Your task to perform on an android device: Open Chrome and go to the settings page Image 0: 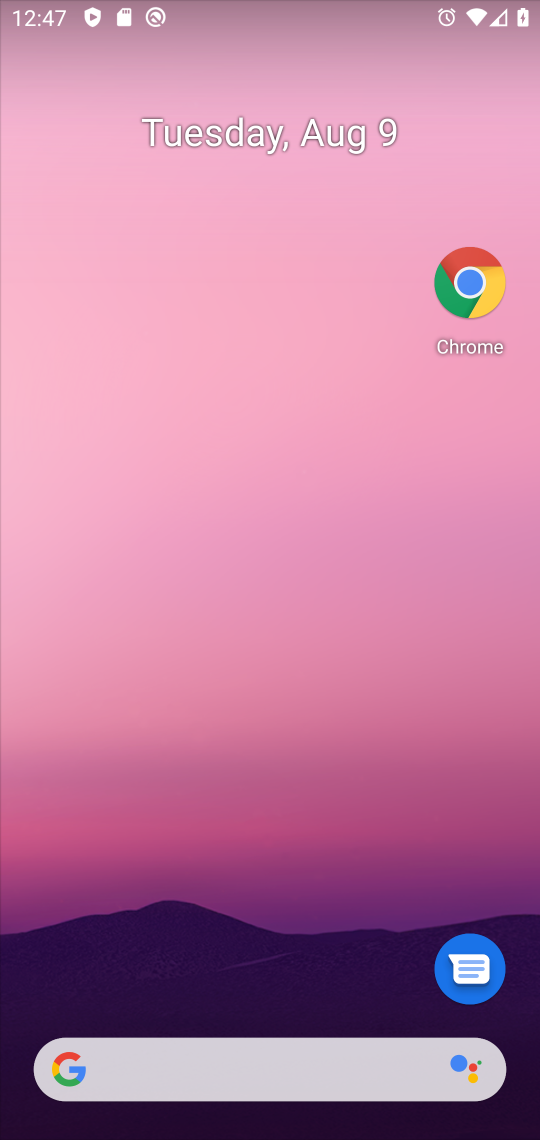
Step 0: click (504, 467)
Your task to perform on an android device: Open Chrome and go to the settings page Image 1: 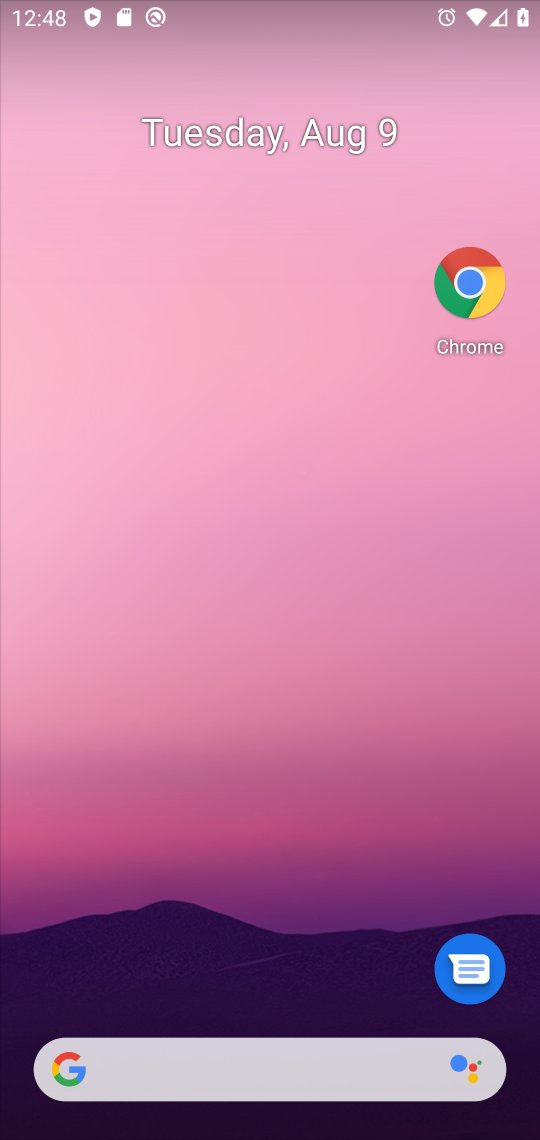
Step 1: drag from (277, 833) to (444, 3)
Your task to perform on an android device: Open Chrome and go to the settings page Image 2: 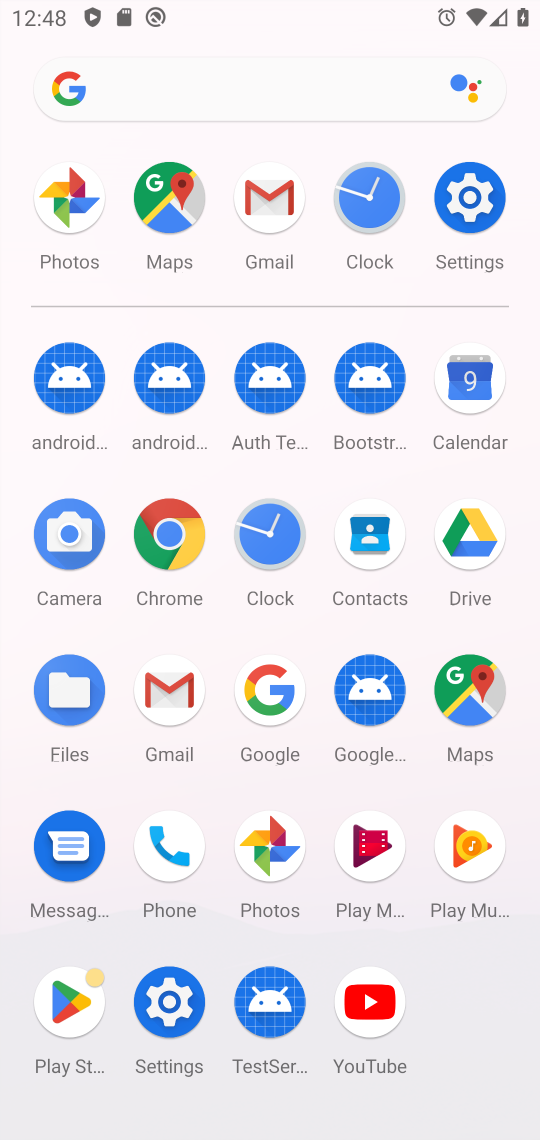
Step 2: click (466, 188)
Your task to perform on an android device: Open Chrome and go to the settings page Image 3: 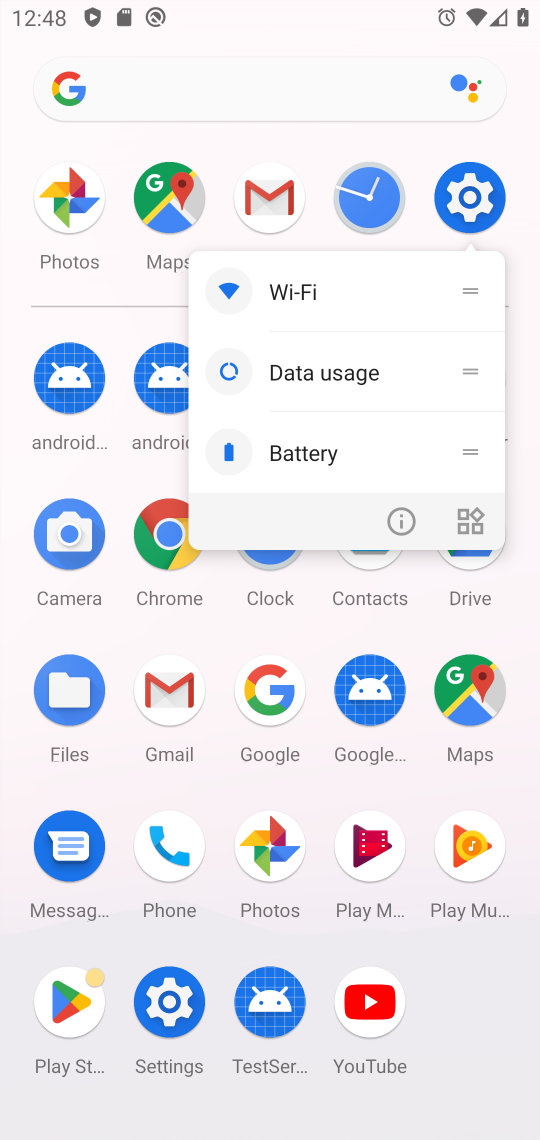
Step 3: click (387, 506)
Your task to perform on an android device: Open Chrome and go to the settings page Image 4: 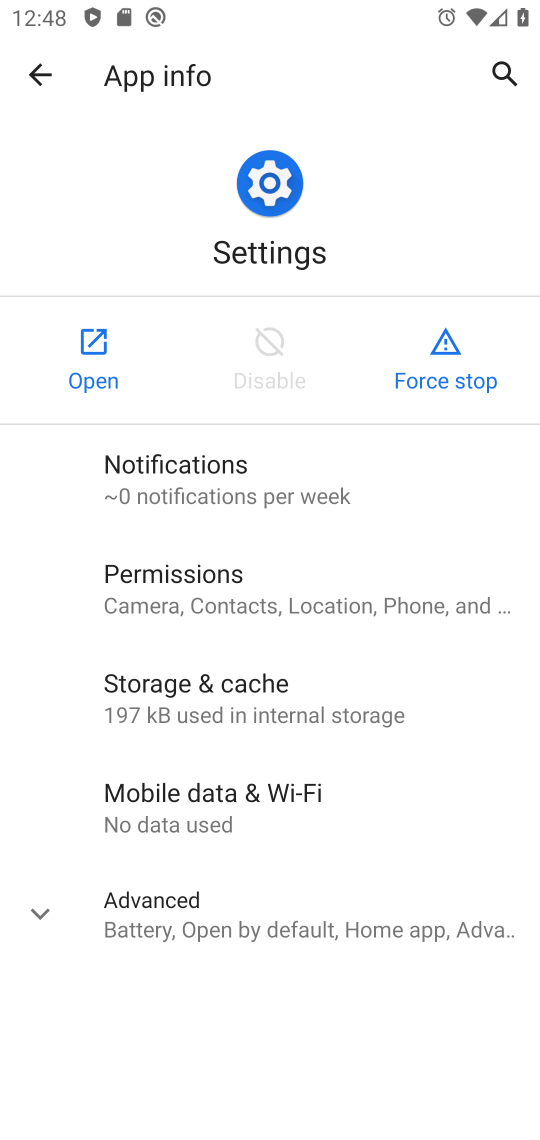
Step 4: click (104, 335)
Your task to perform on an android device: Open Chrome and go to the settings page Image 5: 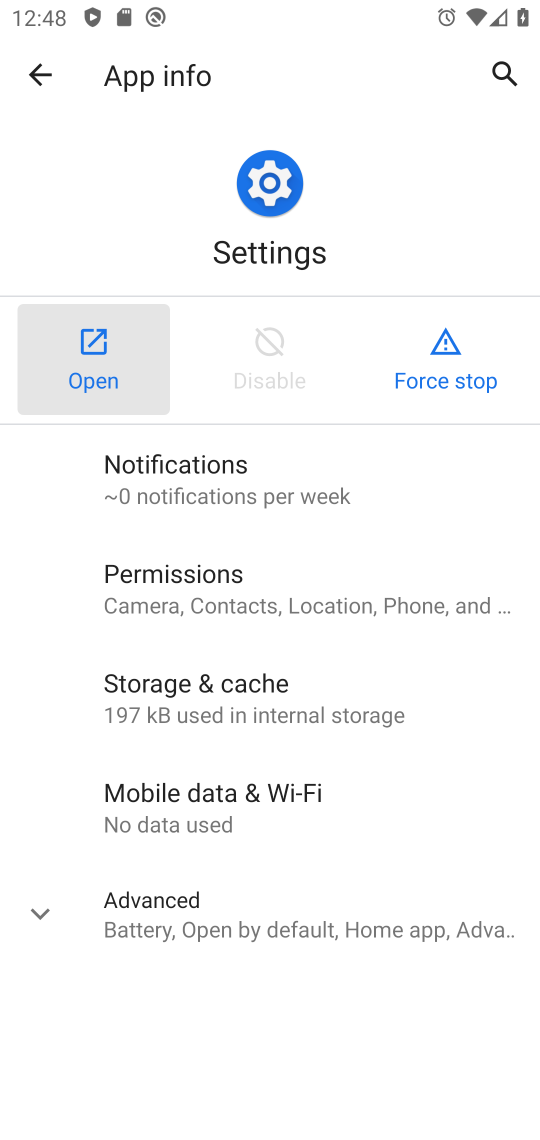
Step 5: click (100, 335)
Your task to perform on an android device: Open Chrome and go to the settings page Image 6: 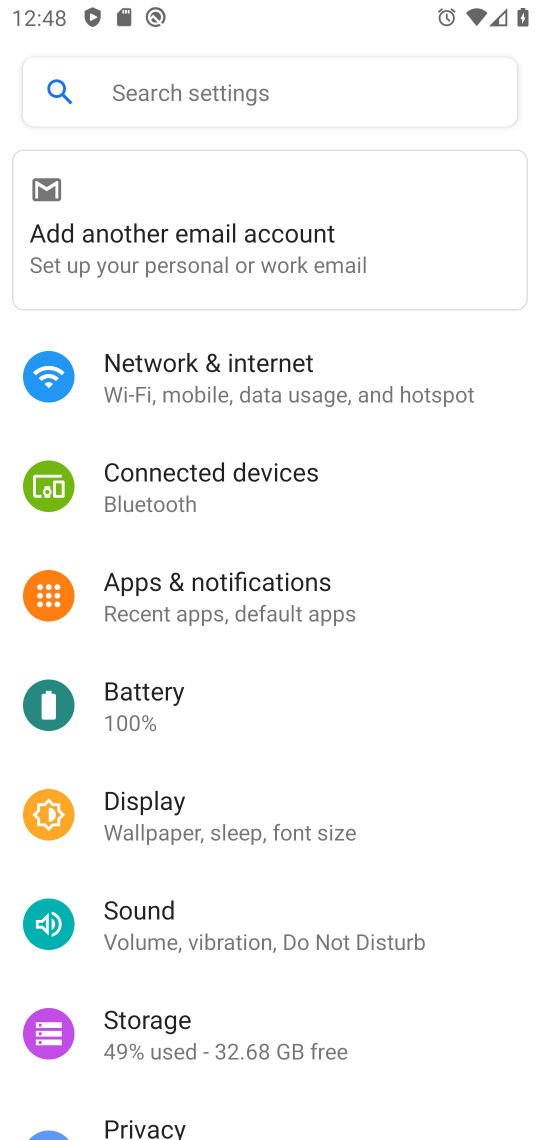
Step 6: press home button
Your task to perform on an android device: Open Chrome and go to the settings page Image 7: 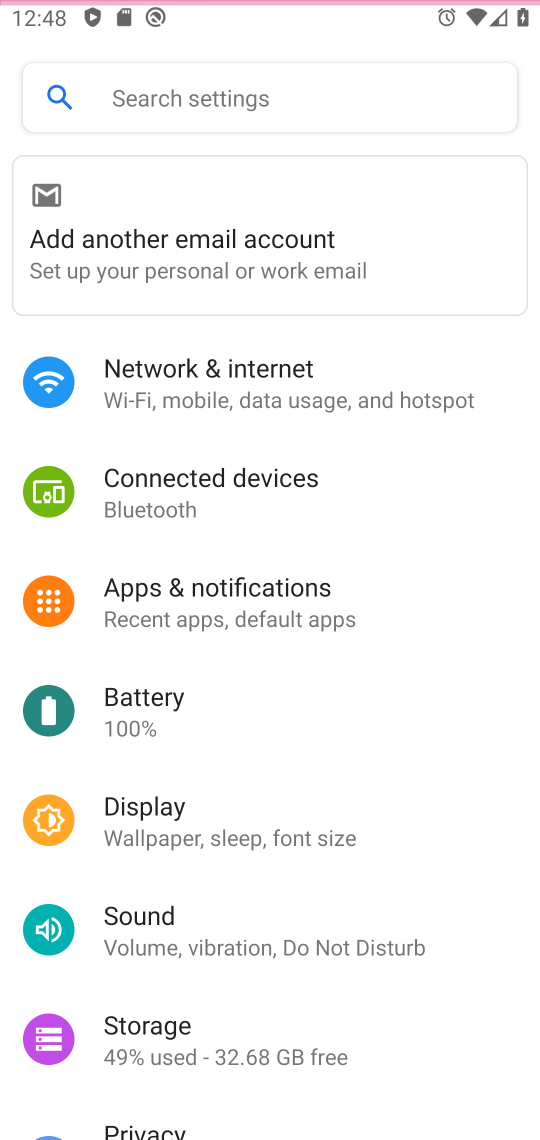
Step 7: drag from (290, 630) to (323, 78)
Your task to perform on an android device: Open Chrome and go to the settings page Image 8: 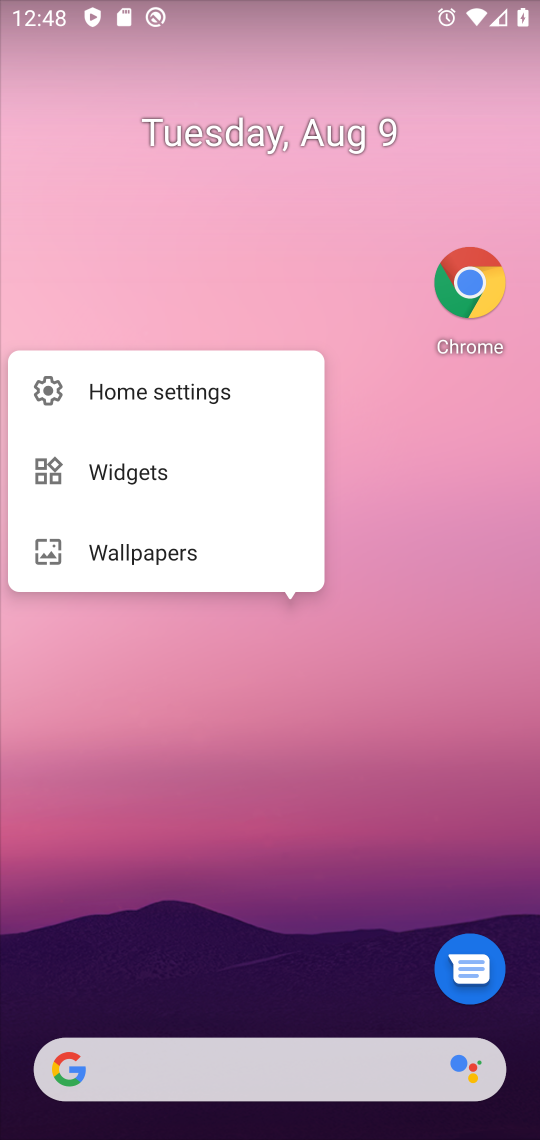
Step 8: click (469, 282)
Your task to perform on an android device: Open Chrome and go to the settings page Image 9: 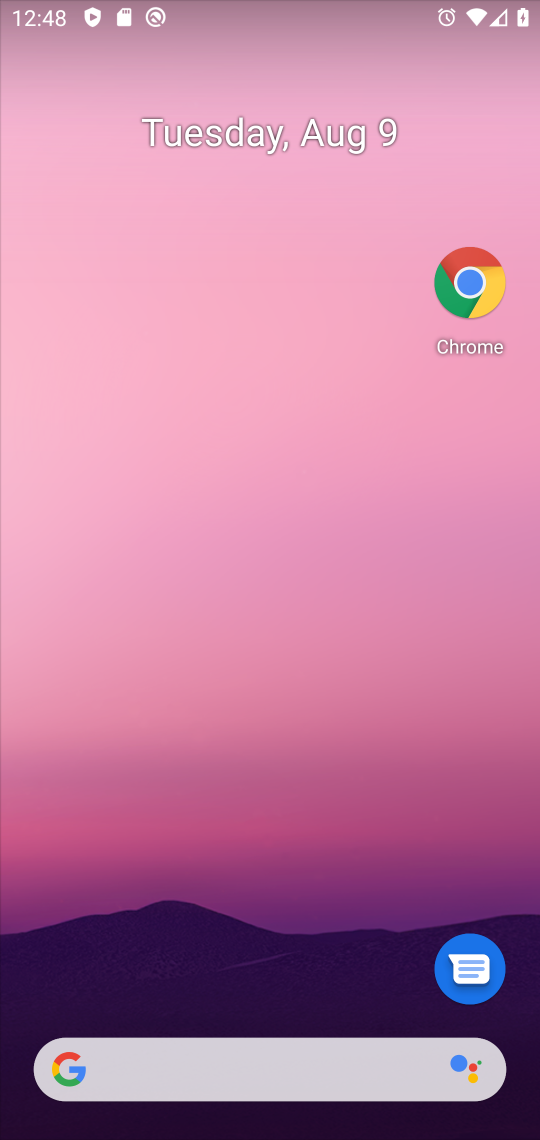
Step 9: click (469, 282)
Your task to perform on an android device: Open Chrome and go to the settings page Image 10: 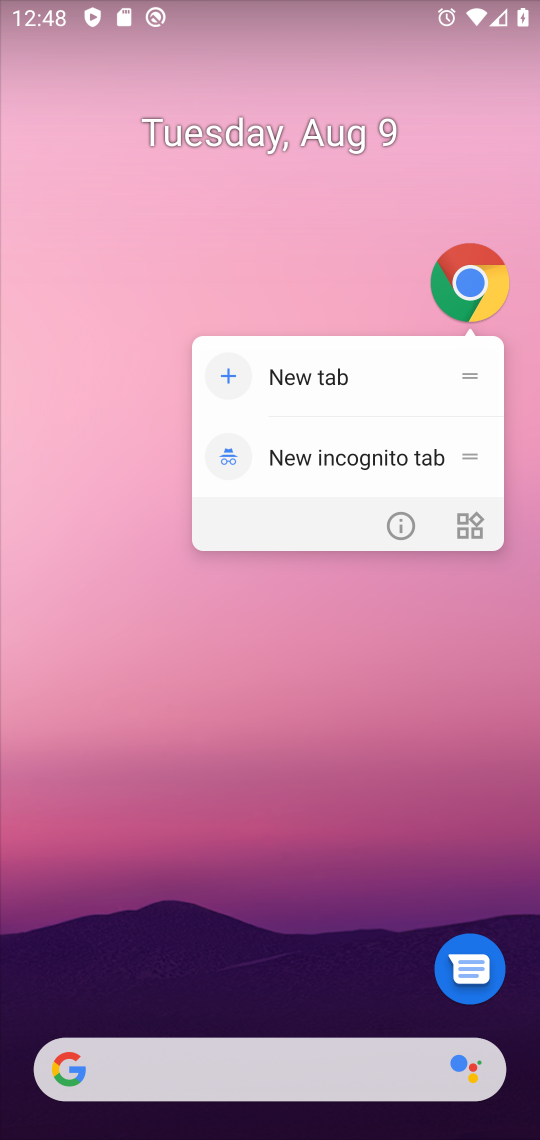
Step 10: click (469, 282)
Your task to perform on an android device: Open Chrome and go to the settings page Image 11: 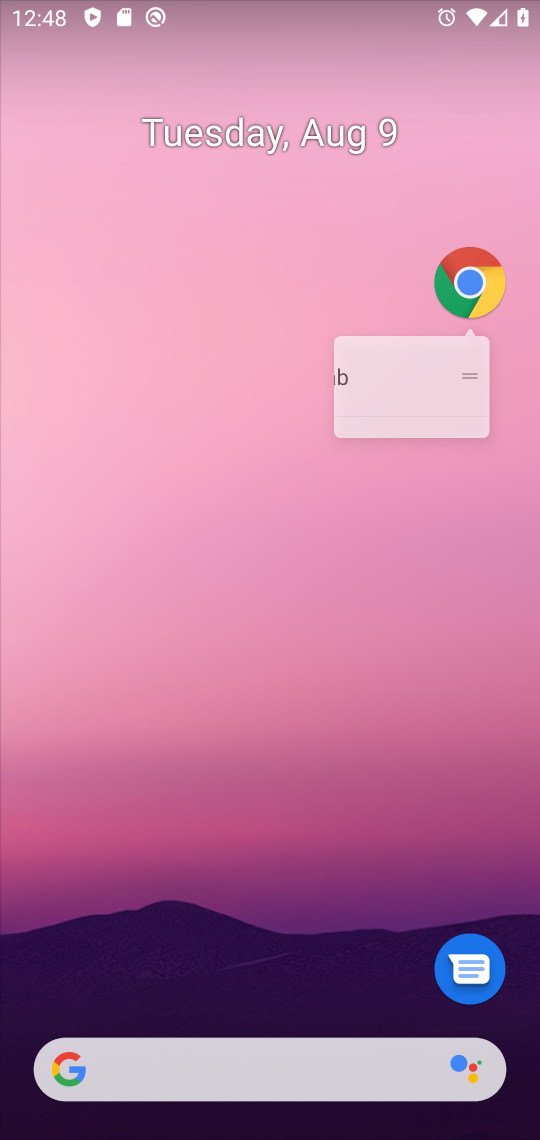
Step 11: click (469, 282)
Your task to perform on an android device: Open Chrome and go to the settings page Image 12: 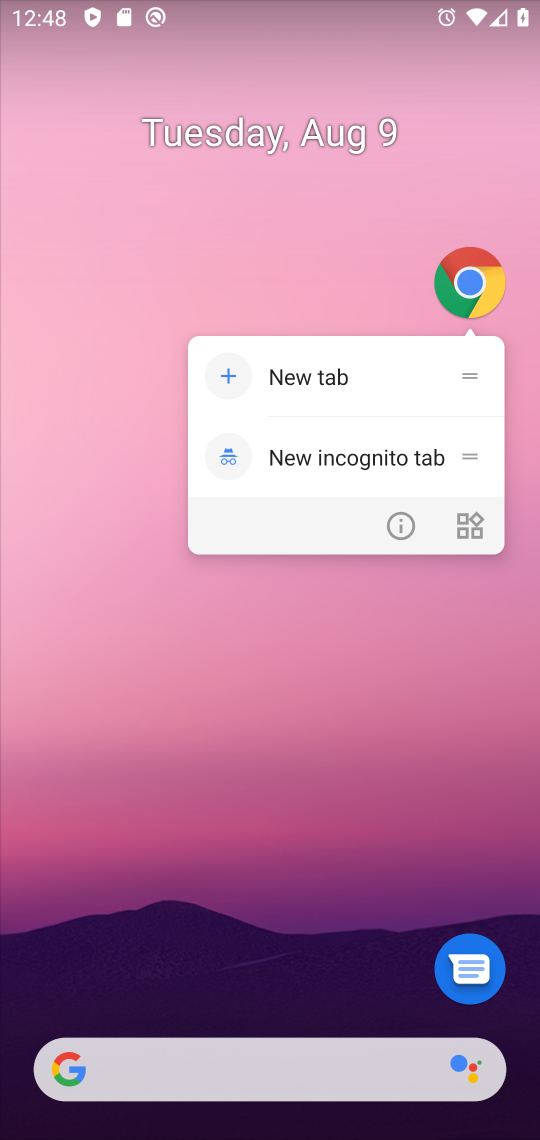
Step 12: click (390, 505)
Your task to perform on an android device: Open Chrome and go to the settings page Image 13: 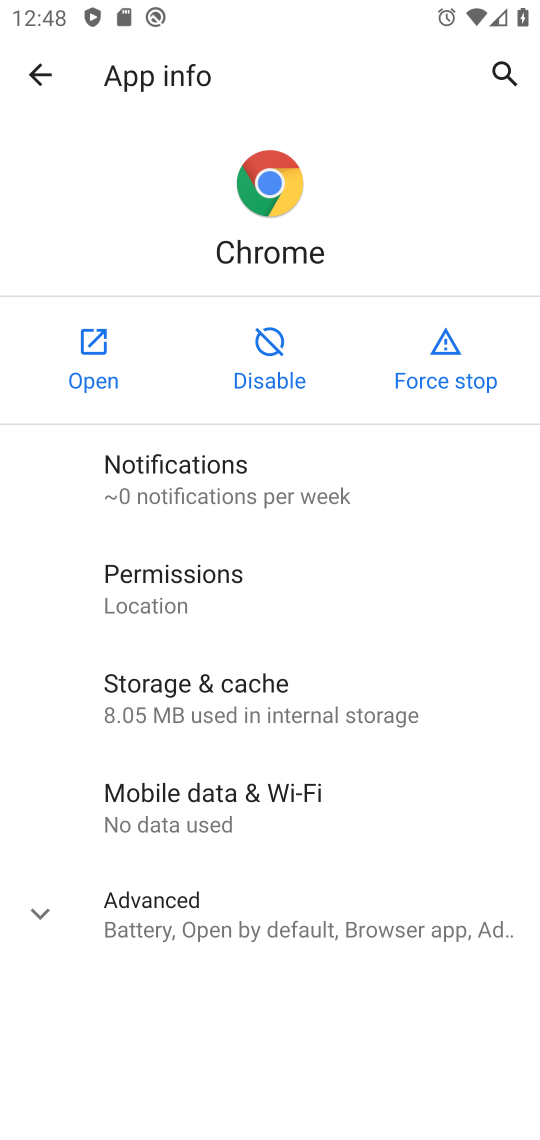
Step 13: click (79, 344)
Your task to perform on an android device: Open Chrome and go to the settings page Image 14: 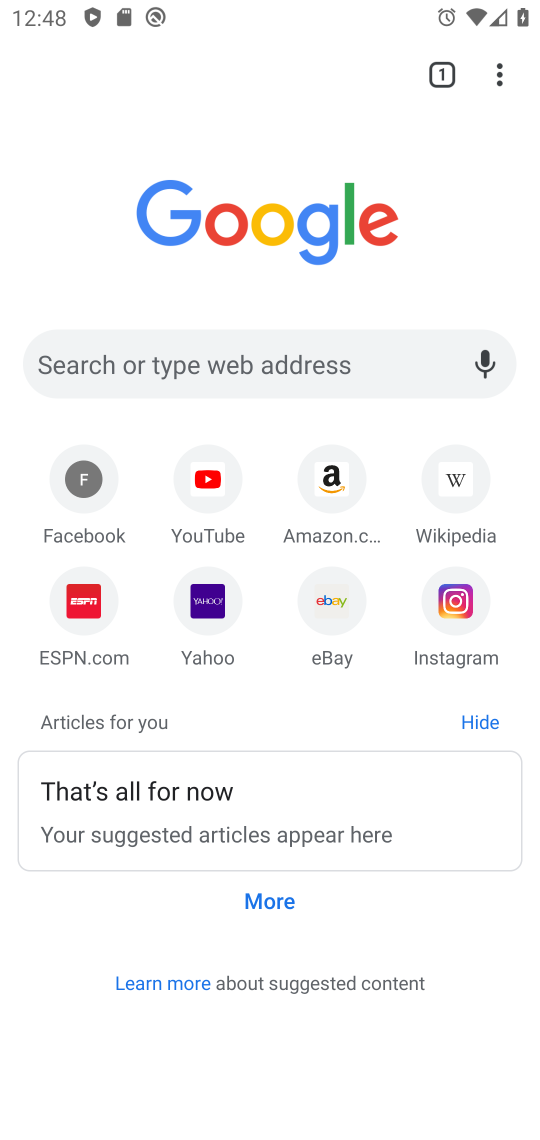
Step 14: task complete